Your task to perform on an android device: Open Youtube and go to the subscriptions tab Image 0: 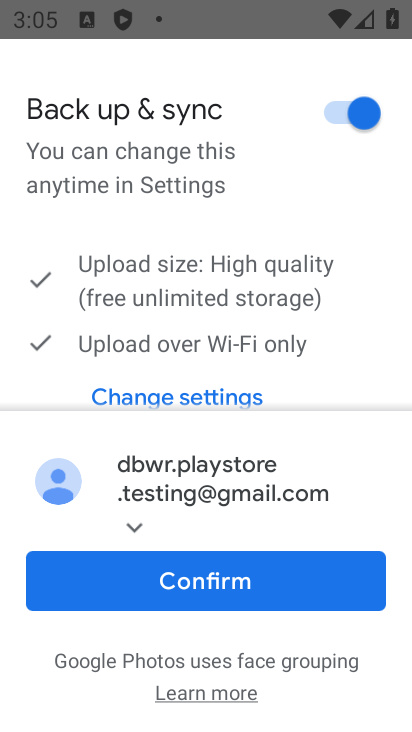
Step 0: press home button
Your task to perform on an android device: Open Youtube and go to the subscriptions tab Image 1: 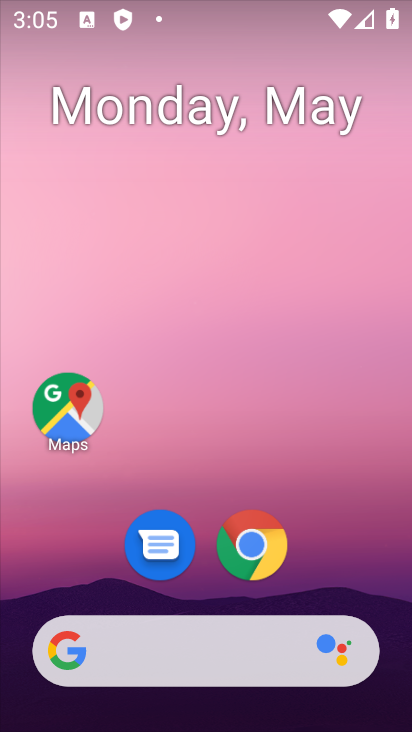
Step 1: drag from (205, 592) to (215, 225)
Your task to perform on an android device: Open Youtube and go to the subscriptions tab Image 2: 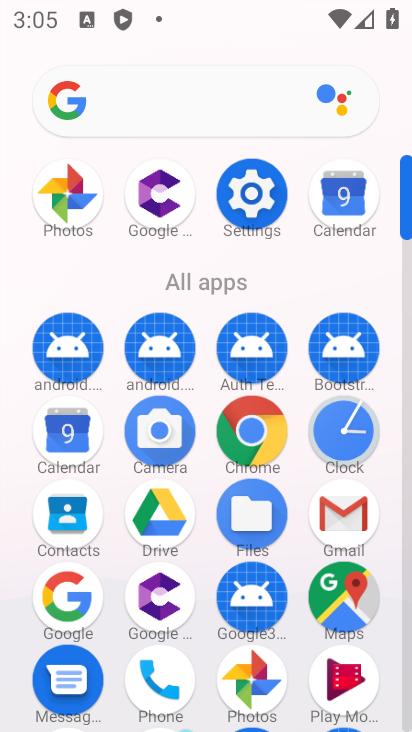
Step 2: drag from (198, 648) to (226, 343)
Your task to perform on an android device: Open Youtube and go to the subscriptions tab Image 3: 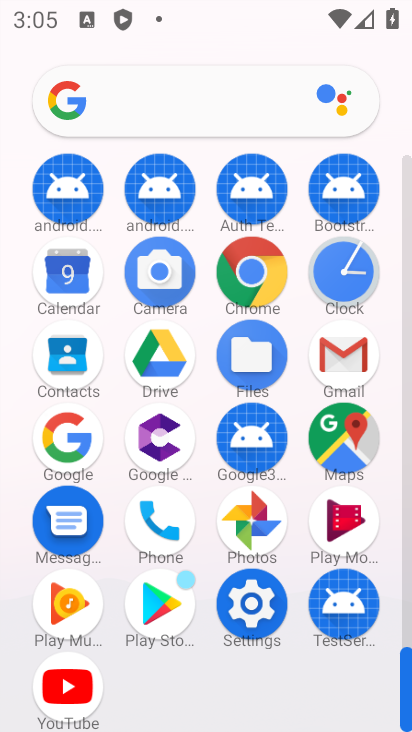
Step 3: click (97, 693)
Your task to perform on an android device: Open Youtube and go to the subscriptions tab Image 4: 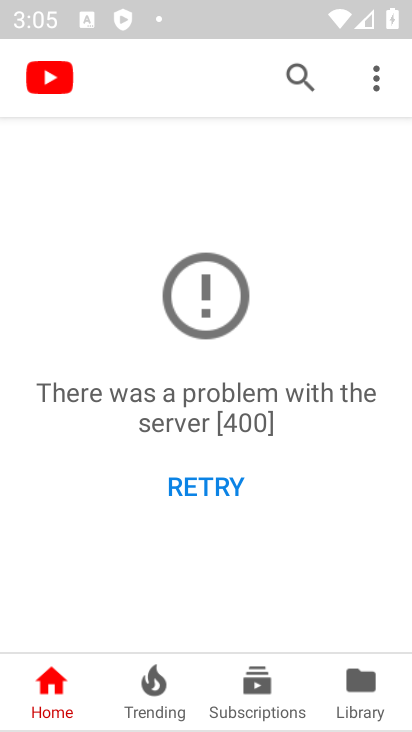
Step 4: click (240, 696)
Your task to perform on an android device: Open Youtube and go to the subscriptions tab Image 5: 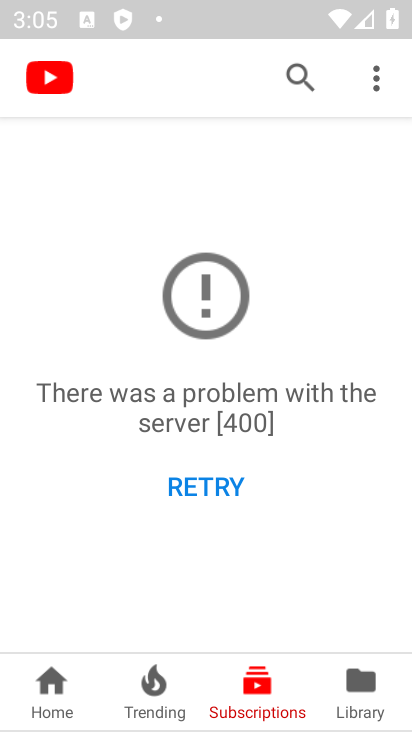
Step 5: task complete